Your task to perform on an android device: What's the weather going to be tomorrow? Image 0: 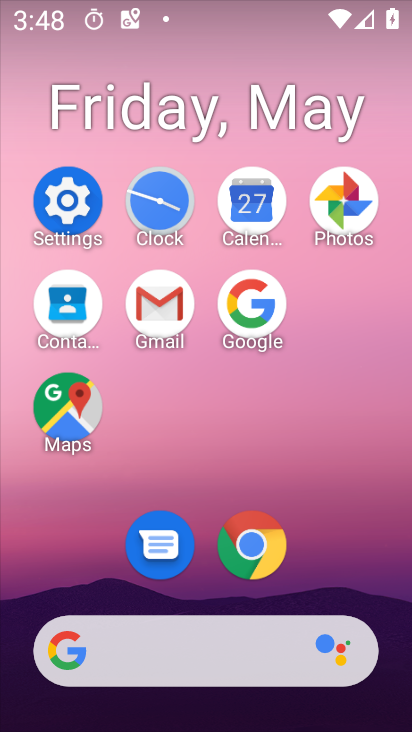
Step 0: click (238, 307)
Your task to perform on an android device: What's the weather going to be tomorrow? Image 1: 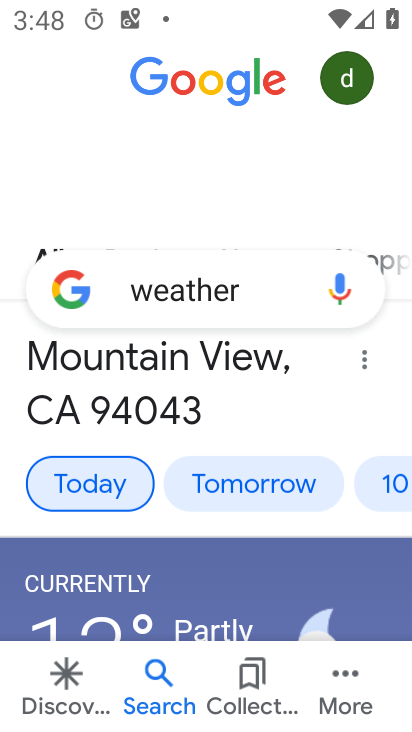
Step 1: click (216, 491)
Your task to perform on an android device: What's the weather going to be tomorrow? Image 2: 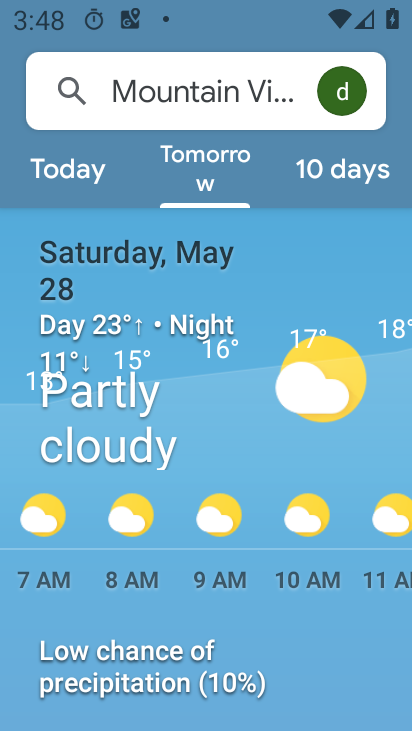
Step 2: task complete